Your task to perform on an android device: Go to Google maps Image 0: 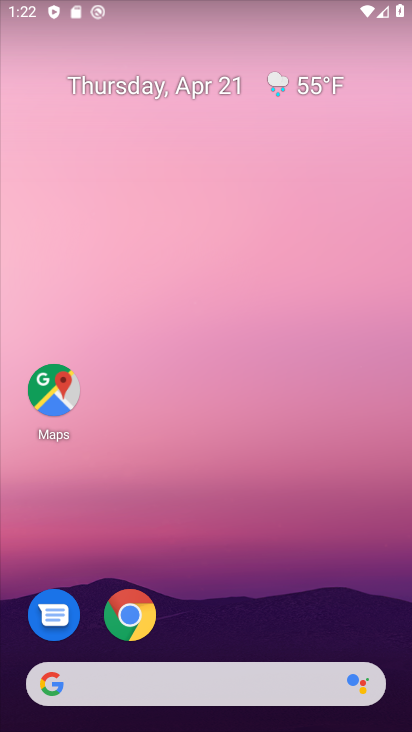
Step 0: click (48, 392)
Your task to perform on an android device: Go to Google maps Image 1: 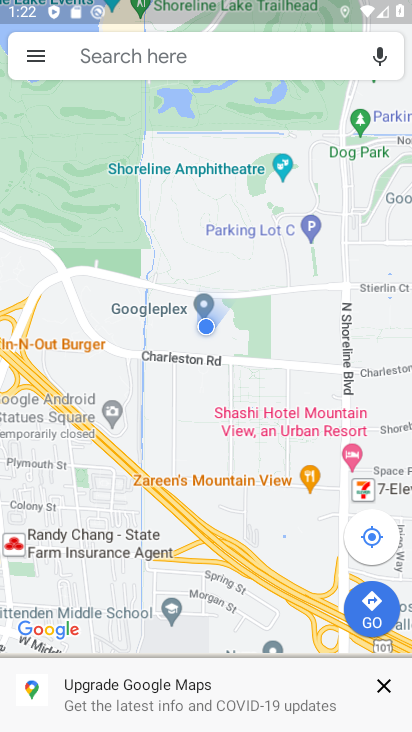
Step 1: task complete